Your task to perform on an android device: toggle airplane mode Image 0: 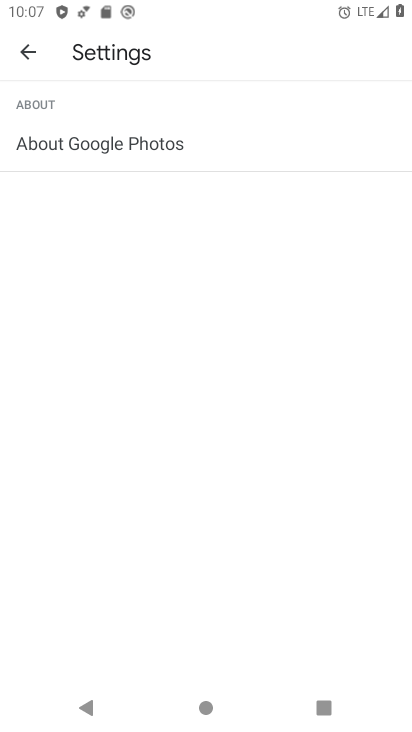
Step 0: press home button
Your task to perform on an android device: toggle airplane mode Image 1: 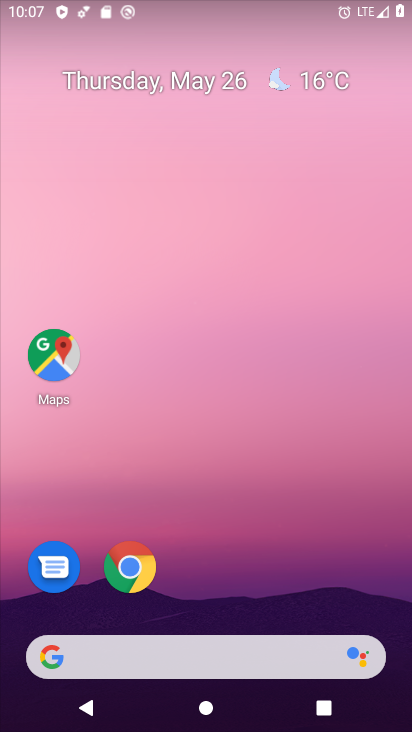
Step 1: click (37, 350)
Your task to perform on an android device: toggle airplane mode Image 2: 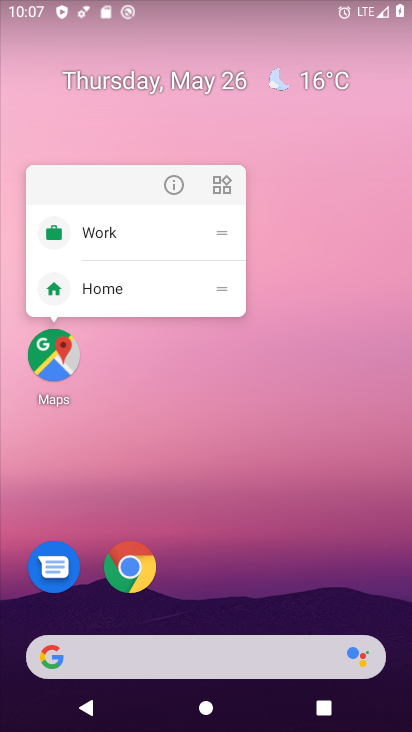
Step 2: press back button
Your task to perform on an android device: toggle airplane mode Image 3: 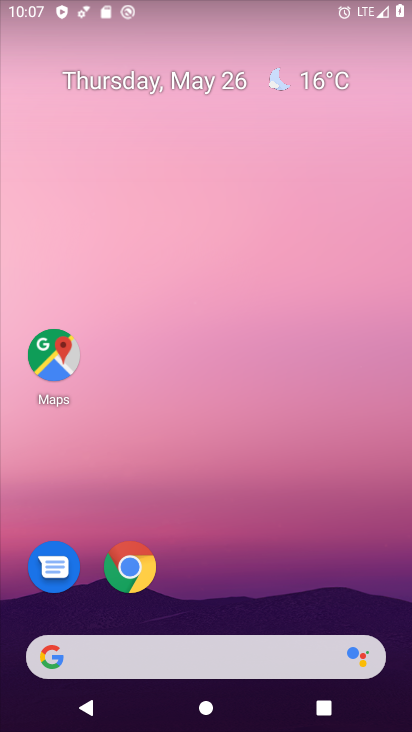
Step 3: drag from (388, 689) to (288, 175)
Your task to perform on an android device: toggle airplane mode Image 4: 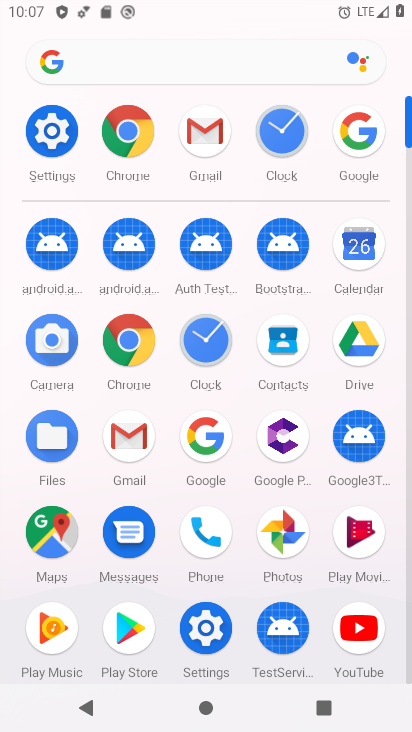
Step 4: click (57, 119)
Your task to perform on an android device: toggle airplane mode Image 5: 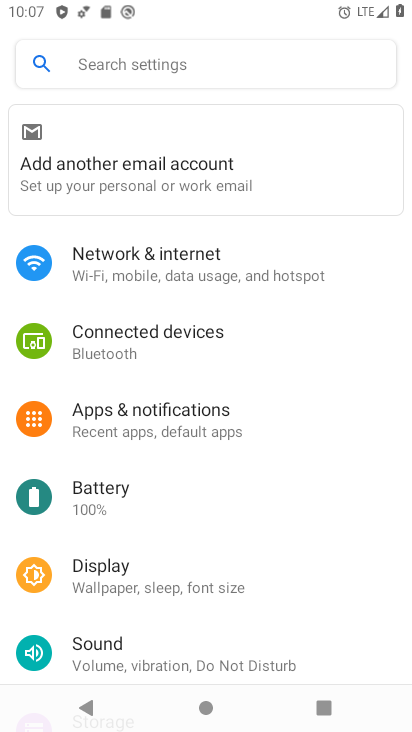
Step 5: click (97, 255)
Your task to perform on an android device: toggle airplane mode Image 6: 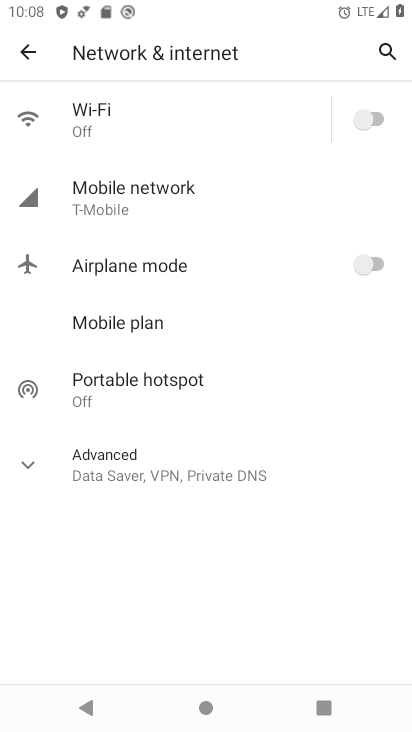
Step 6: click (380, 264)
Your task to perform on an android device: toggle airplane mode Image 7: 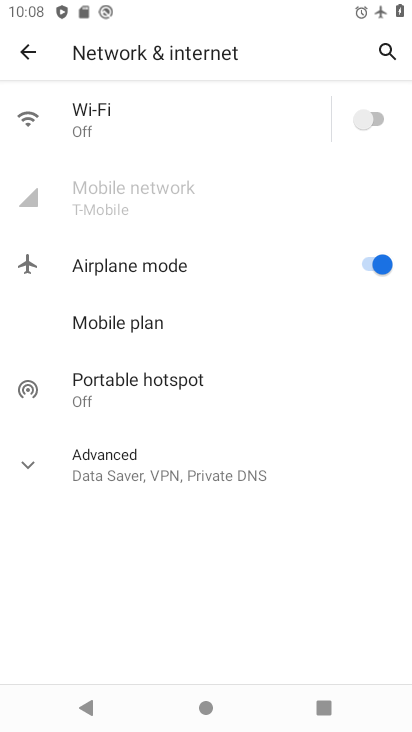
Step 7: task complete